Your task to perform on an android device: remove spam from my inbox in the gmail app Image 0: 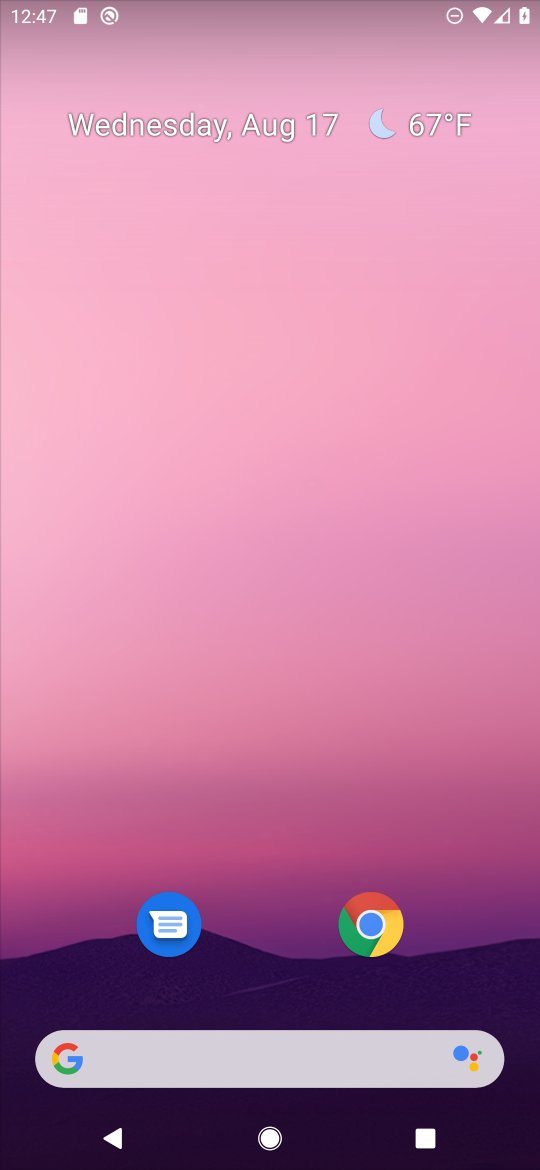
Step 0: click (216, 9)
Your task to perform on an android device: remove spam from my inbox in the gmail app Image 1: 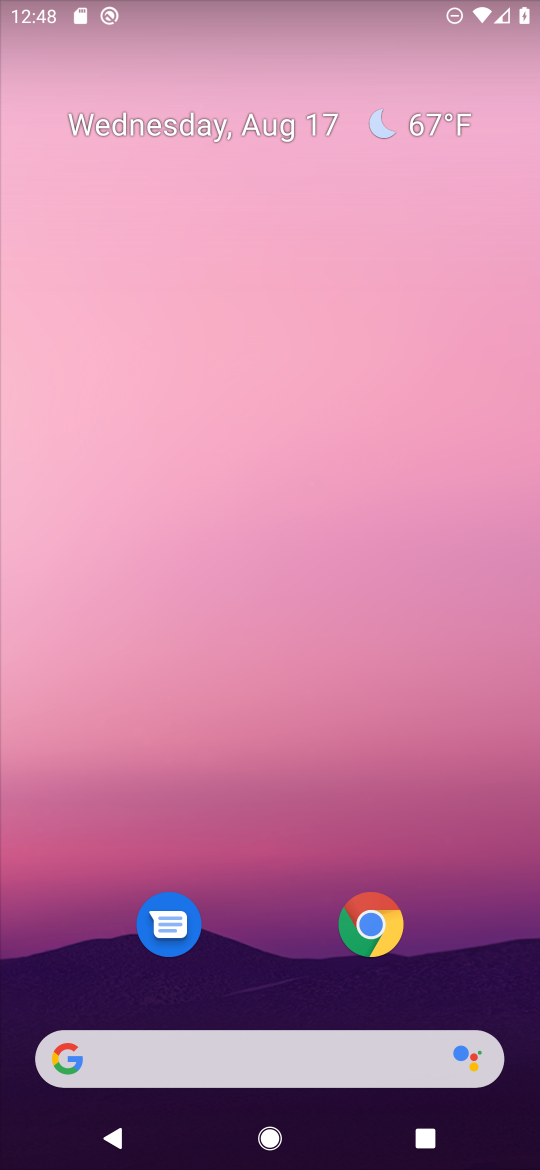
Step 1: drag from (265, 991) to (288, 59)
Your task to perform on an android device: remove spam from my inbox in the gmail app Image 2: 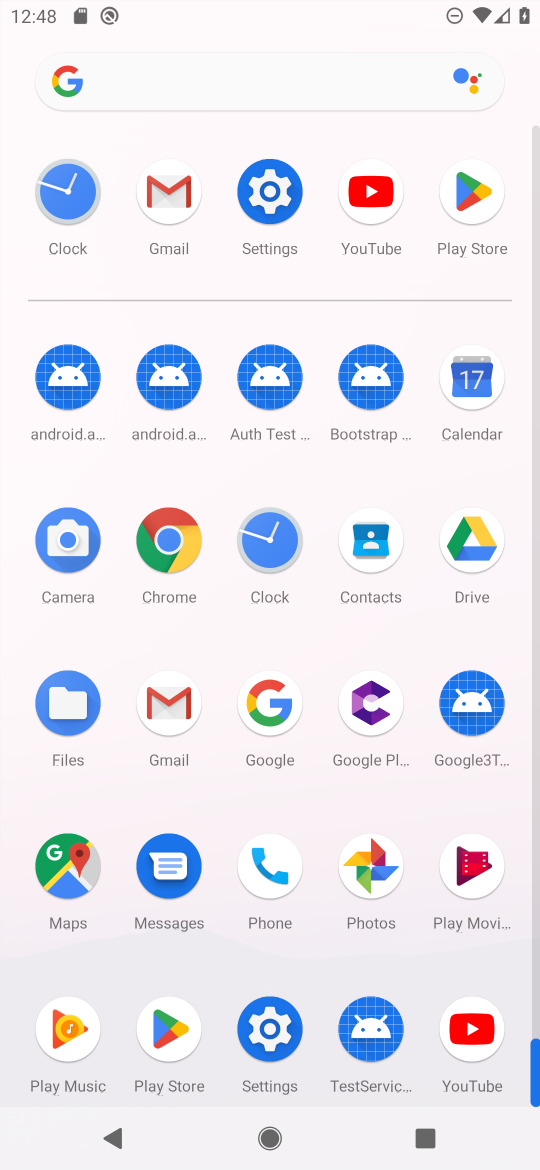
Step 2: click (163, 238)
Your task to perform on an android device: remove spam from my inbox in the gmail app Image 3: 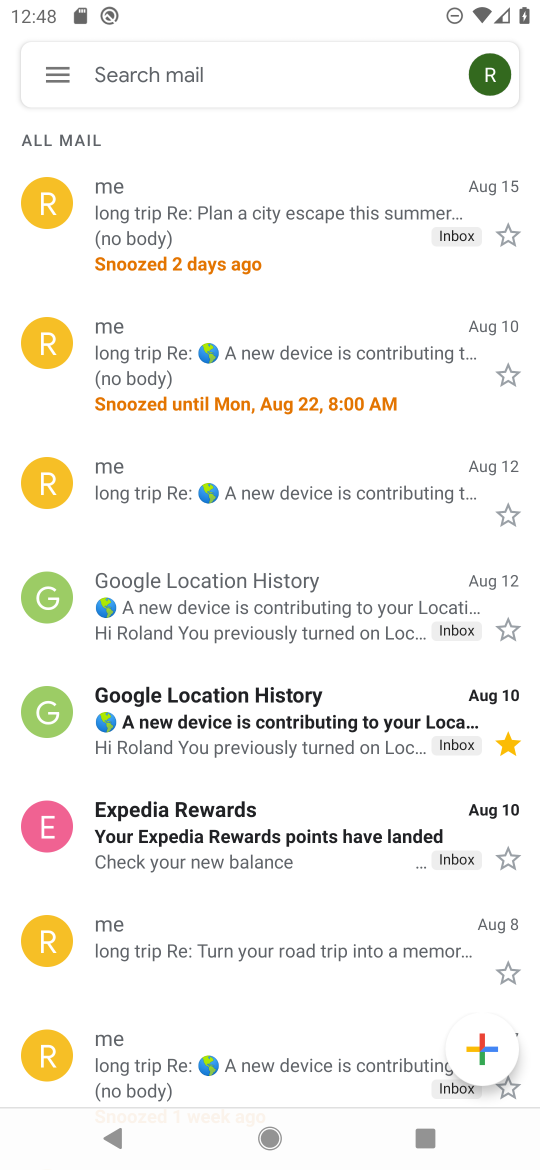
Step 3: click (63, 78)
Your task to perform on an android device: remove spam from my inbox in the gmail app Image 4: 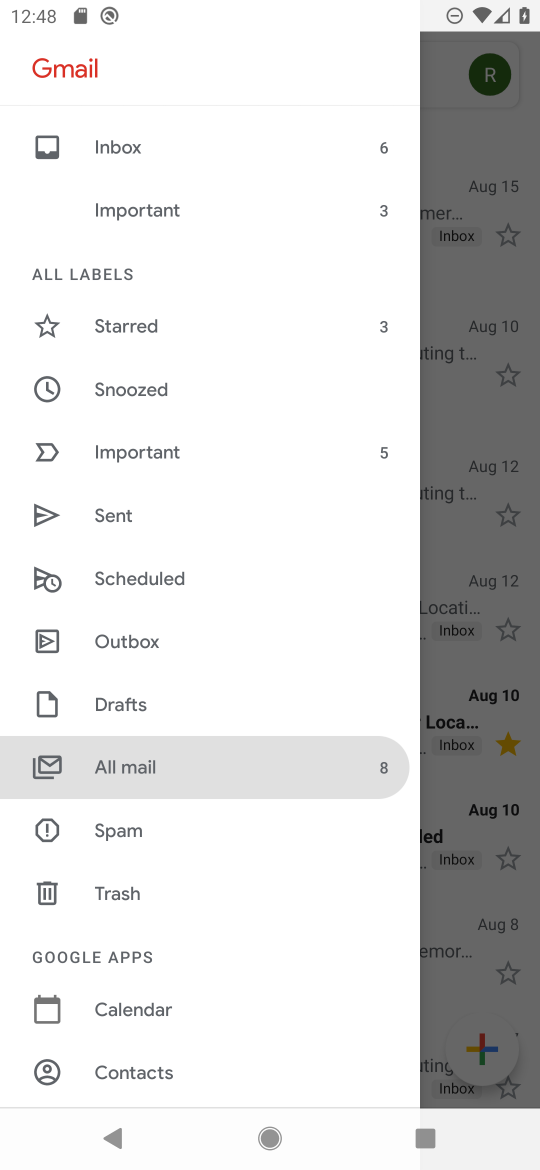
Step 4: click (171, 830)
Your task to perform on an android device: remove spam from my inbox in the gmail app Image 5: 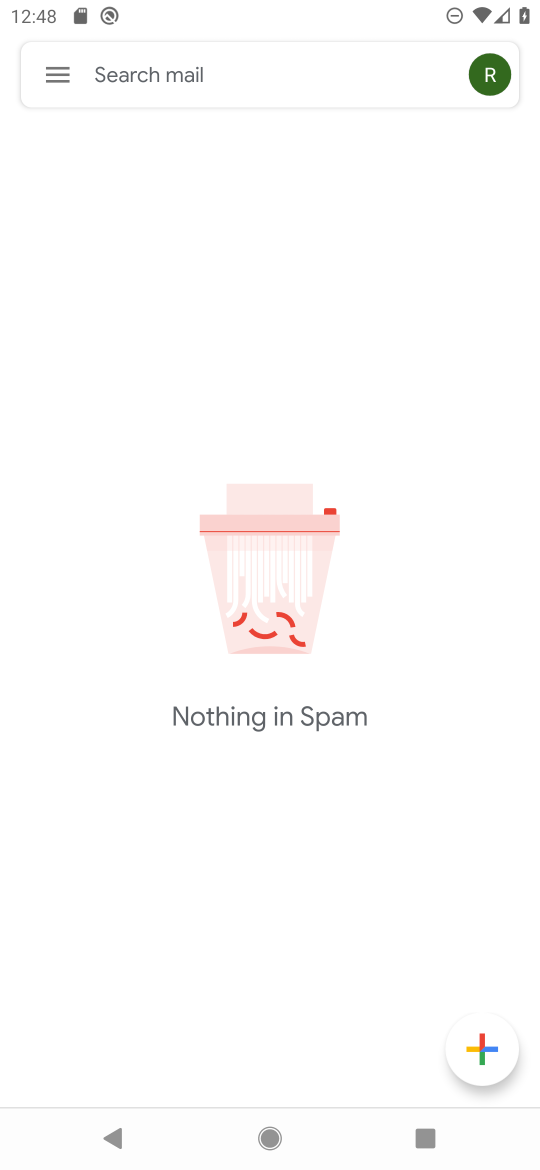
Step 5: task complete